Your task to perform on an android device: Open Google Maps and go to "Timeline" Image 0: 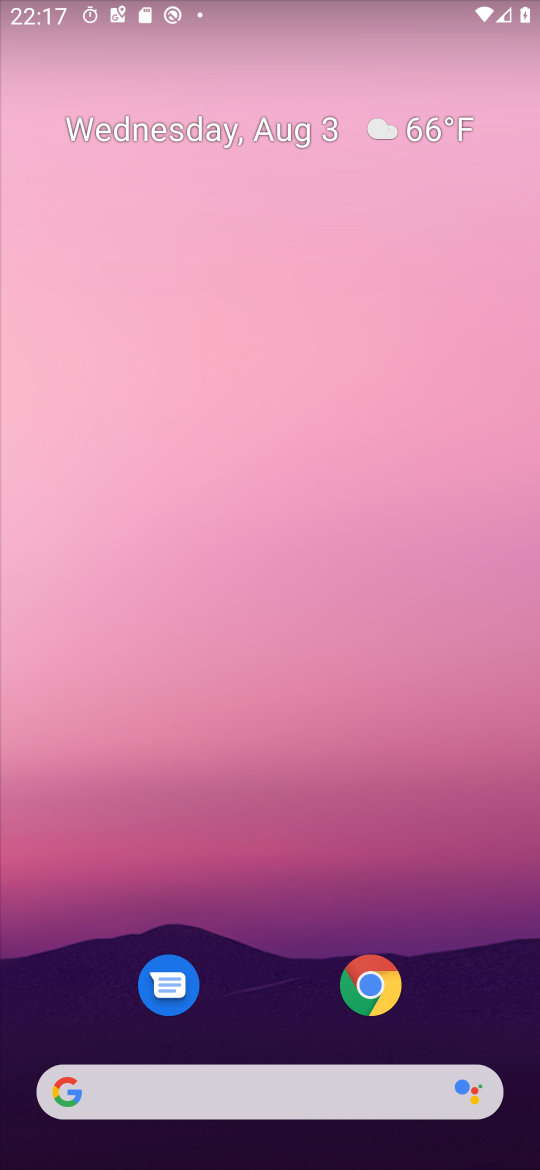
Step 0: drag from (250, 996) to (250, 356)
Your task to perform on an android device: Open Google Maps and go to "Timeline" Image 1: 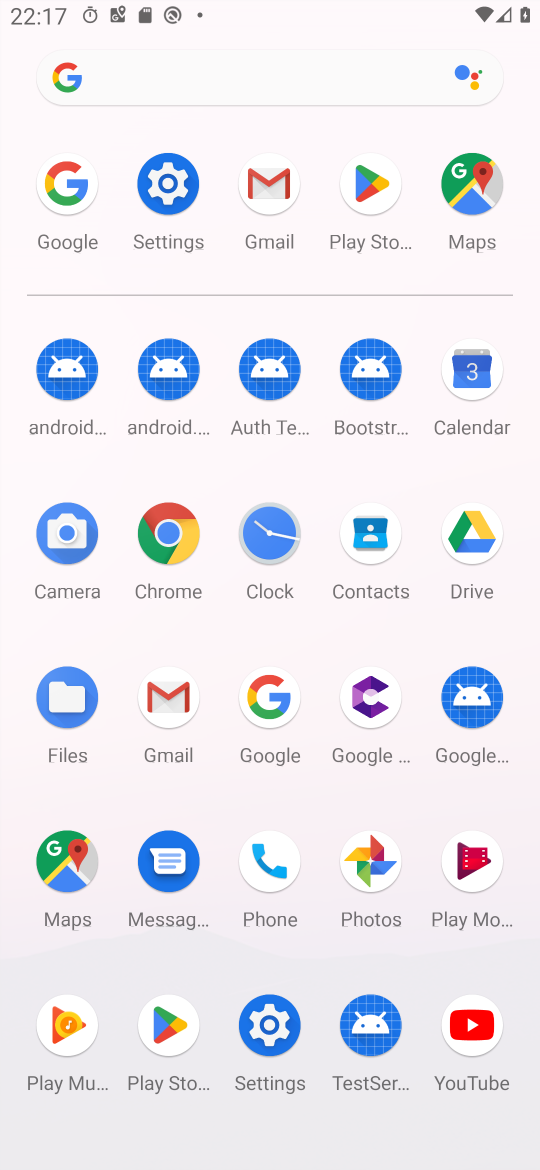
Step 1: click (468, 218)
Your task to perform on an android device: Open Google Maps and go to "Timeline" Image 2: 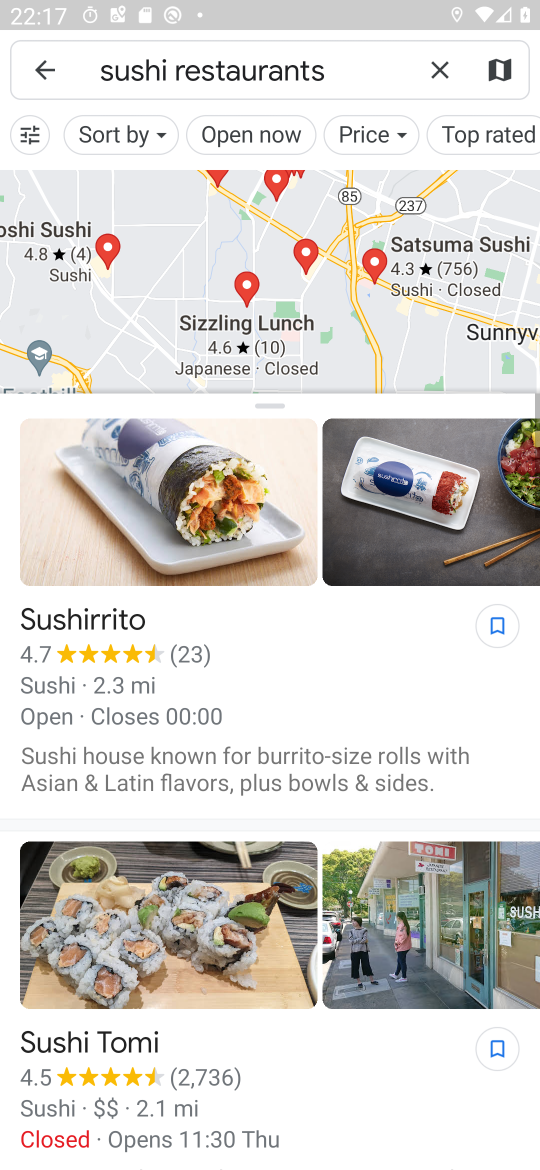
Step 2: click (47, 70)
Your task to perform on an android device: Open Google Maps and go to "Timeline" Image 3: 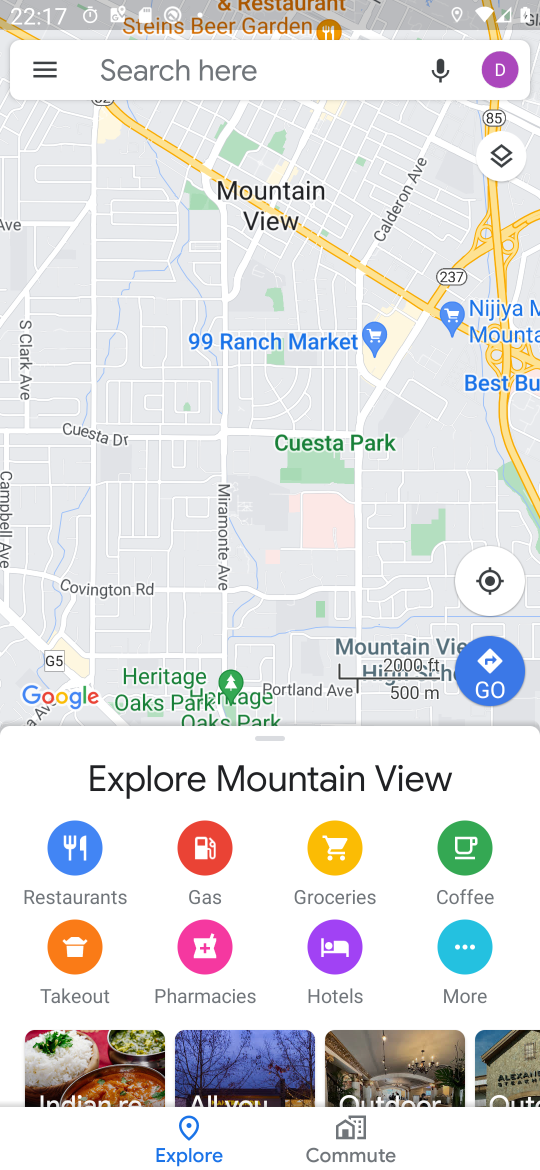
Step 3: click (47, 70)
Your task to perform on an android device: Open Google Maps and go to "Timeline" Image 4: 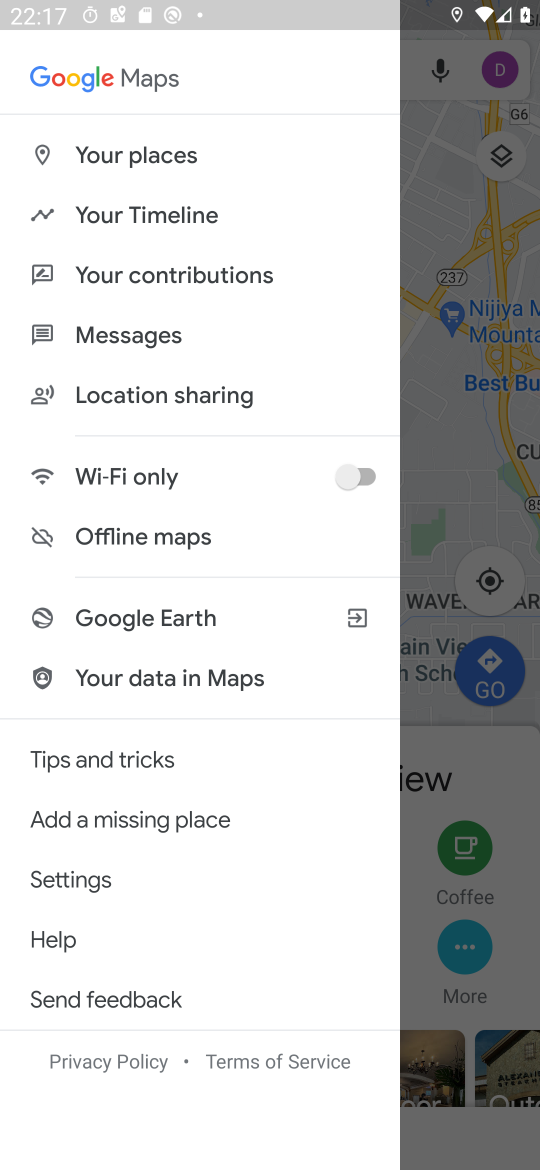
Step 4: click (175, 213)
Your task to perform on an android device: Open Google Maps and go to "Timeline" Image 5: 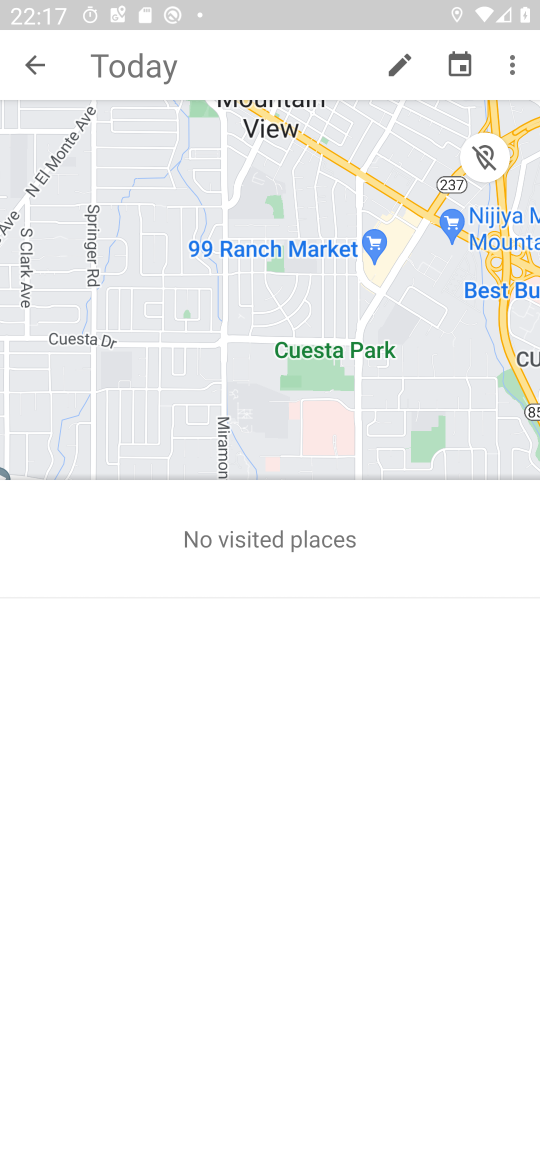
Step 5: task complete